Your task to perform on an android device: What is the recent news? Image 0: 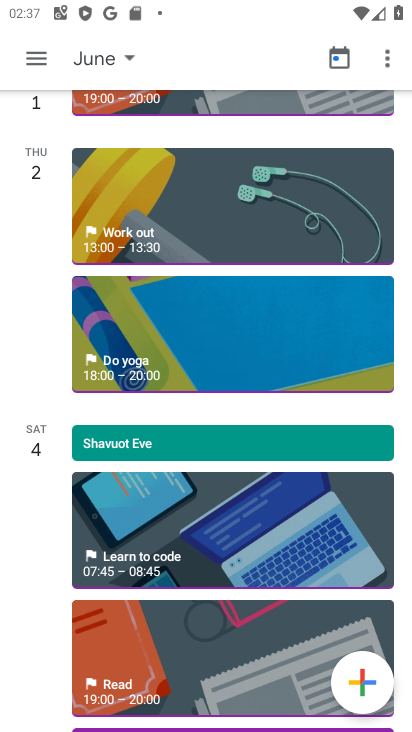
Step 0: press home button
Your task to perform on an android device: What is the recent news? Image 1: 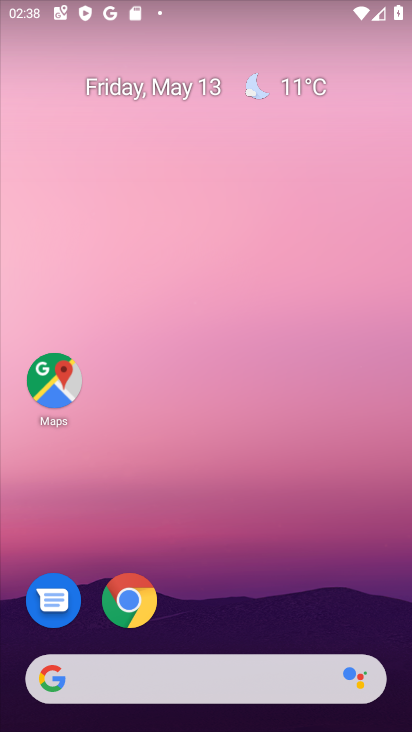
Step 1: drag from (181, 632) to (248, 285)
Your task to perform on an android device: What is the recent news? Image 2: 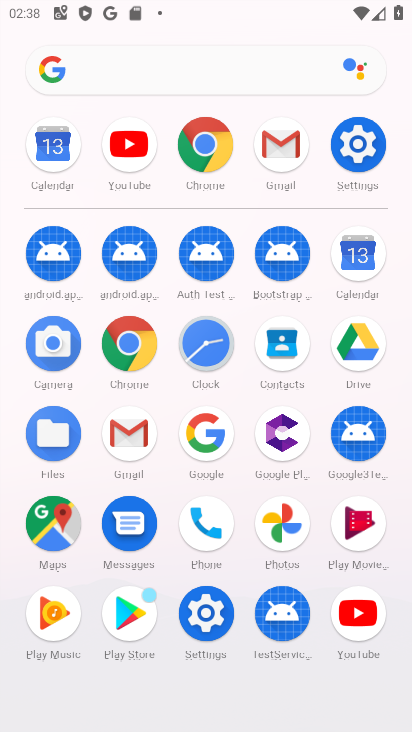
Step 2: click (208, 85)
Your task to perform on an android device: What is the recent news? Image 3: 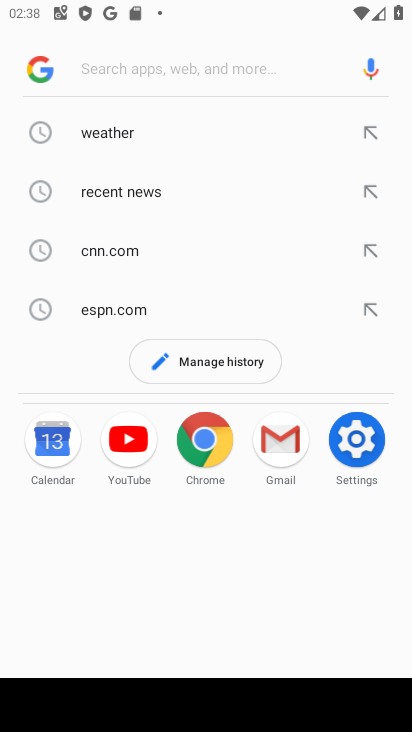
Step 3: click (158, 200)
Your task to perform on an android device: What is the recent news? Image 4: 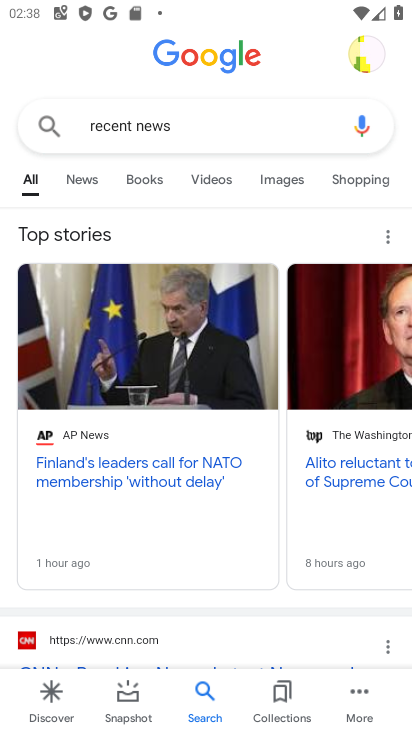
Step 4: drag from (313, 532) to (4, 499)
Your task to perform on an android device: What is the recent news? Image 5: 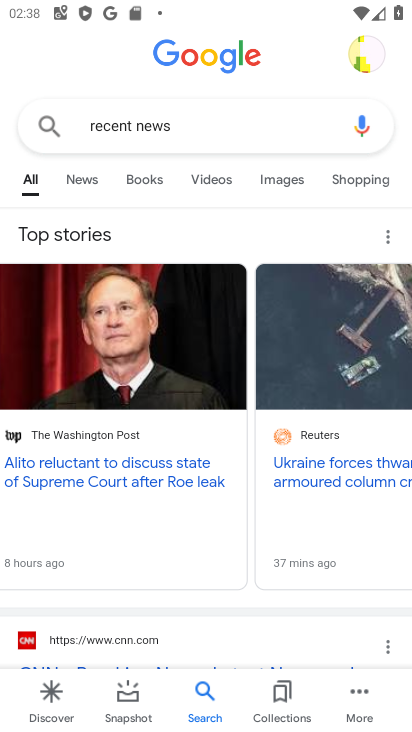
Step 5: click (99, 345)
Your task to perform on an android device: What is the recent news? Image 6: 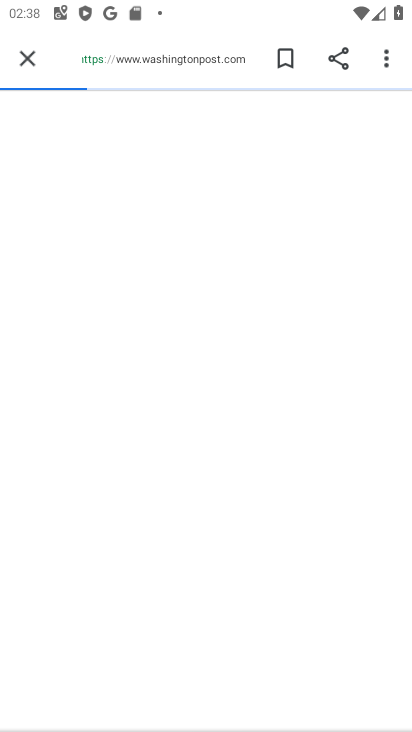
Step 6: task complete